Your task to perform on an android device: turn smart compose on in the gmail app Image 0: 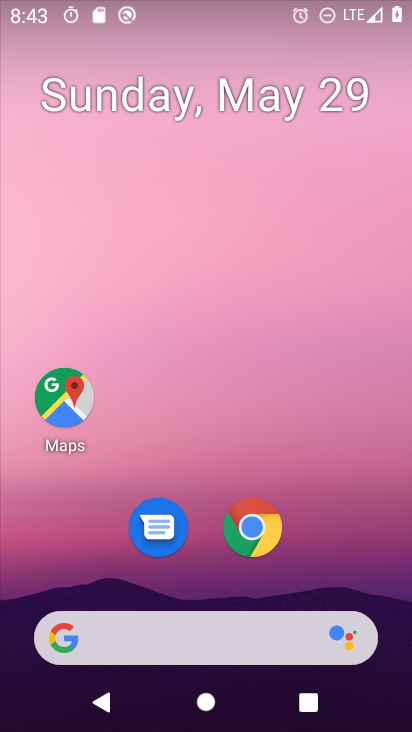
Step 0: drag from (387, 642) to (310, 59)
Your task to perform on an android device: turn smart compose on in the gmail app Image 1: 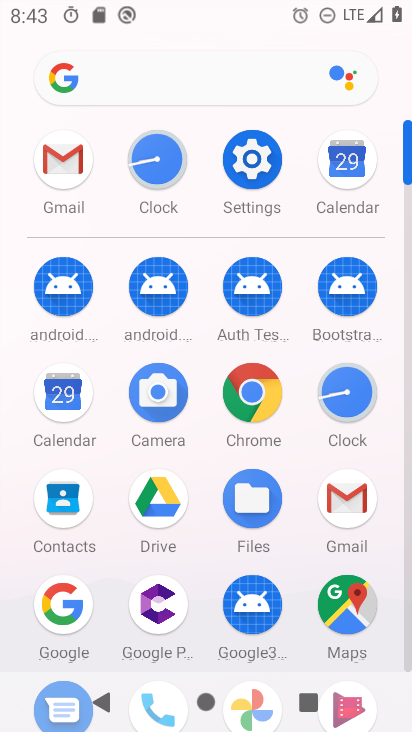
Step 1: click (357, 521)
Your task to perform on an android device: turn smart compose on in the gmail app Image 2: 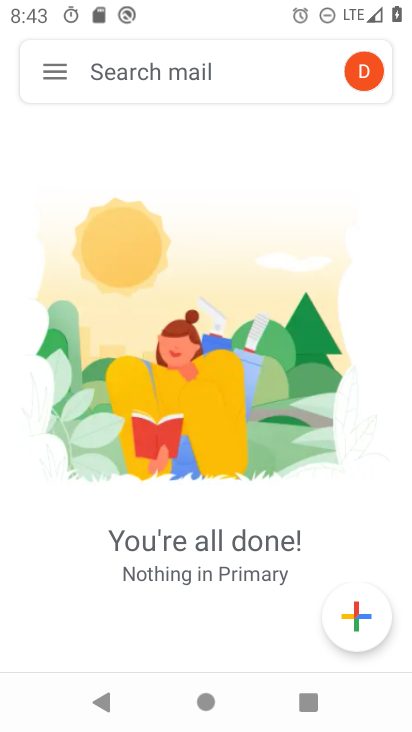
Step 2: click (45, 76)
Your task to perform on an android device: turn smart compose on in the gmail app Image 3: 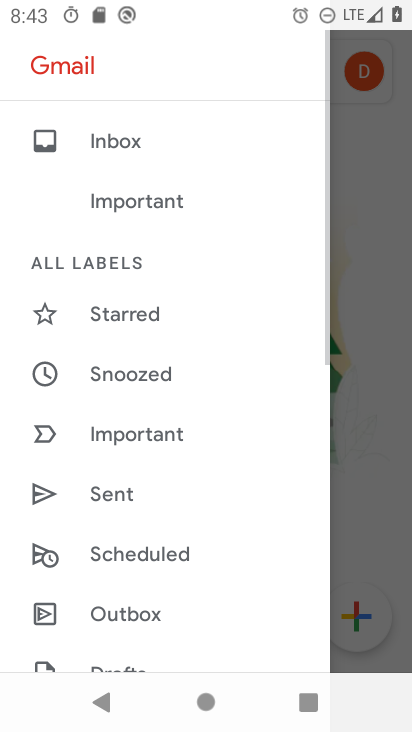
Step 3: drag from (120, 606) to (146, 146)
Your task to perform on an android device: turn smart compose on in the gmail app Image 4: 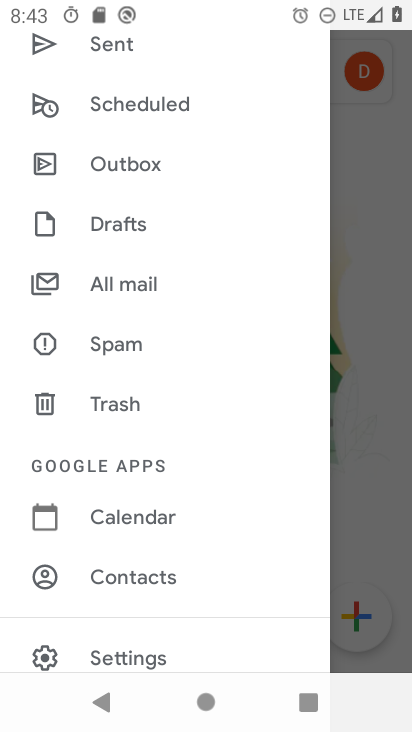
Step 4: click (94, 651)
Your task to perform on an android device: turn smart compose on in the gmail app Image 5: 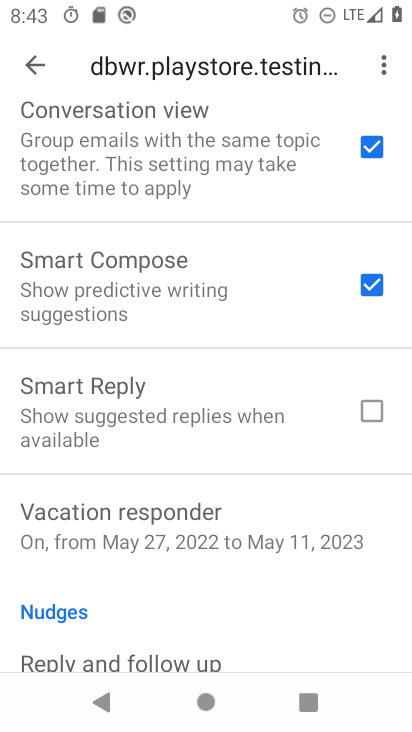
Step 5: task complete